Your task to perform on an android device: open app "VLC for Android" (install if not already installed) Image 0: 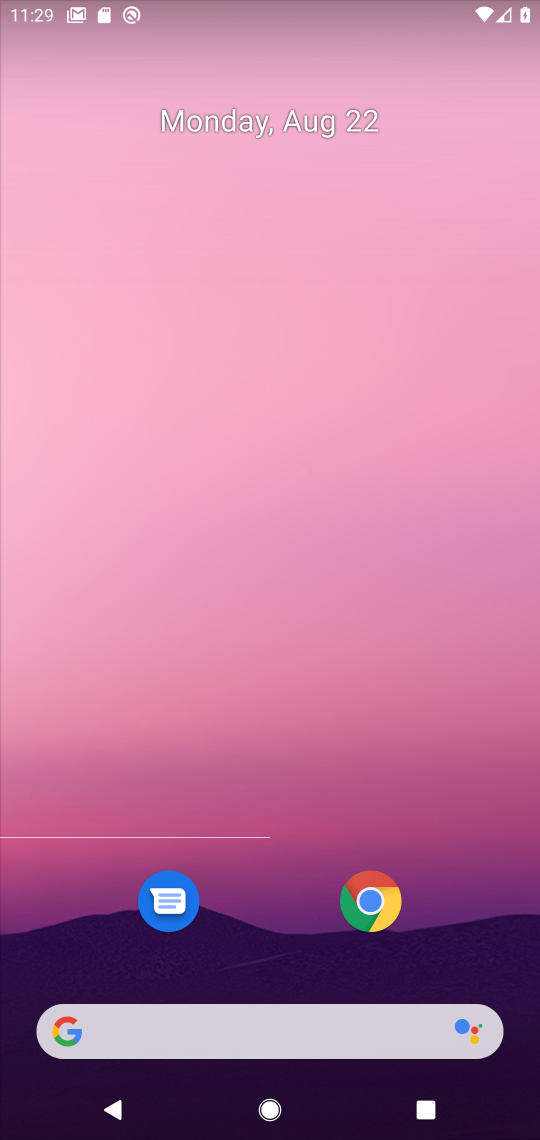
Step 0: click (529, 229)
Your task to perform on an android device: open app "VLC for Android" (install if not already installed) Image 1: 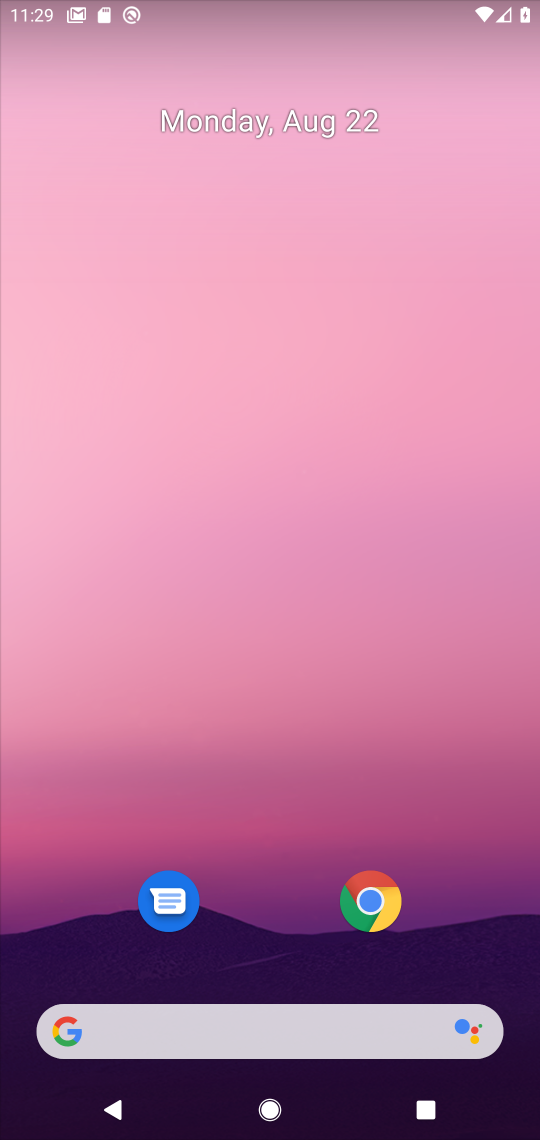
Step 1: drag from (268, 500) to (371, 6)
Your task to perform on an android device: open app "VLC for Android" (install if not already installed) Image 2: 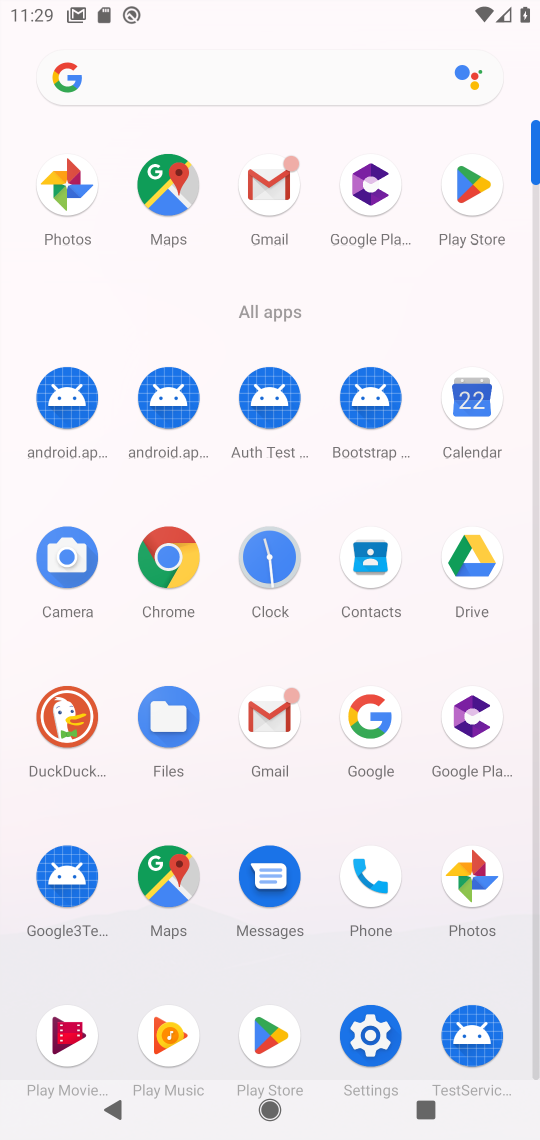
Step 2: click (480, 182)
Your task to perform on an android device: open app "VLC for Android" (install if not already installed) Image 3: 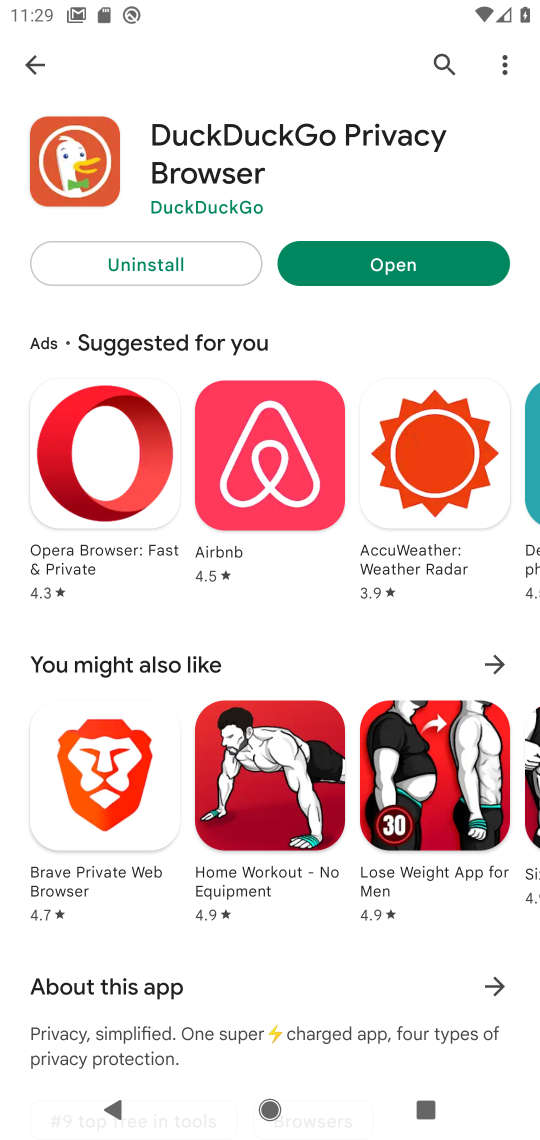
Step 3: click (28, 66)
Your task to perform on an android device: open app "VLC for Android" (install if not already installed) Image 4: 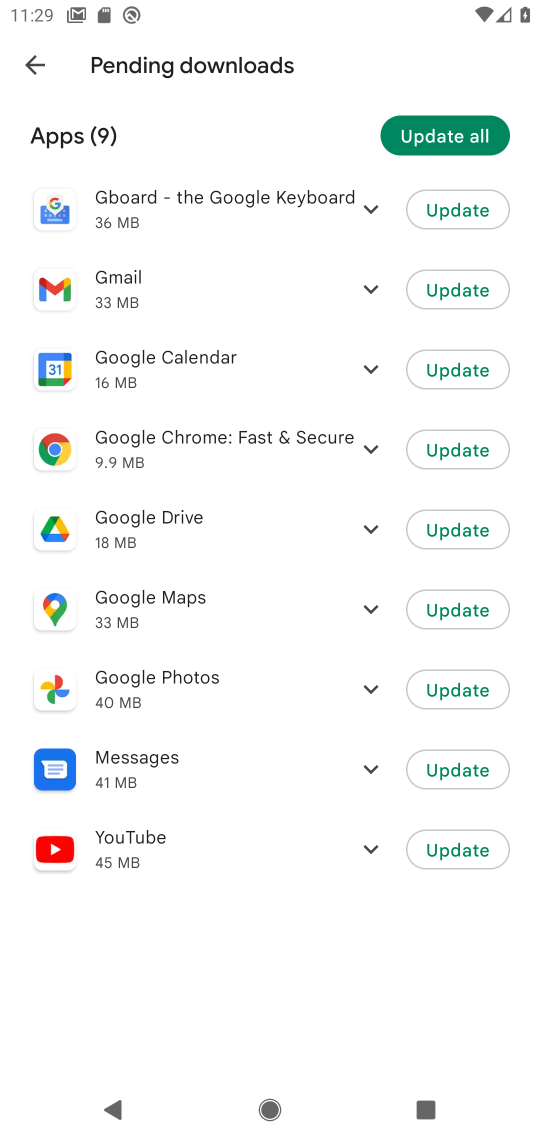
Step 4: click (46, 48)
Your task to perform on an android device: open app "VLC for Android" (install if not already installed) Image 5: 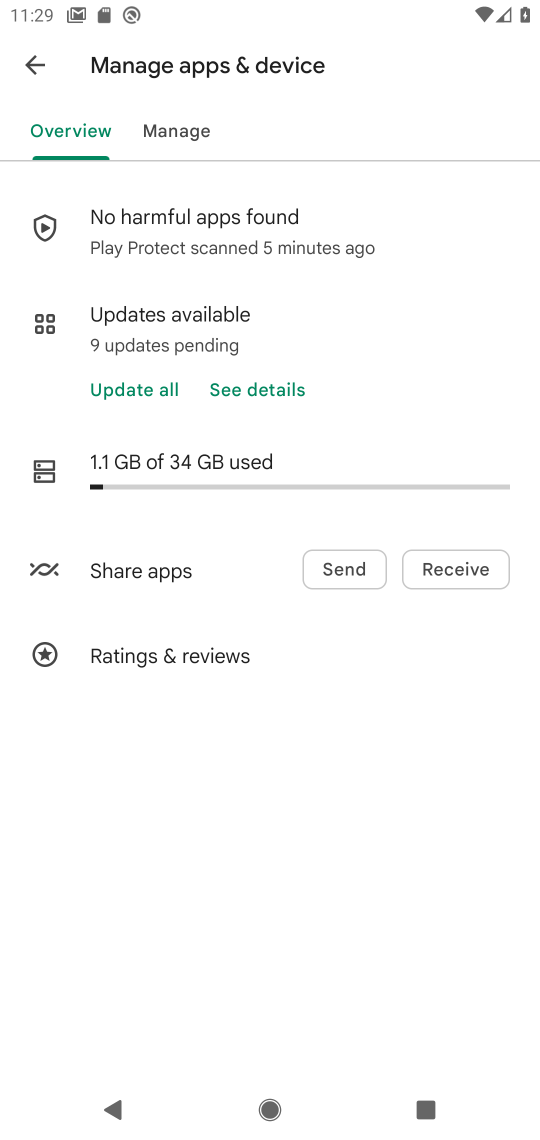
Step 5: click (23, 57)
Your task to perform on an android device: open app "VLC for Android" (install if not already installed) Image 6: 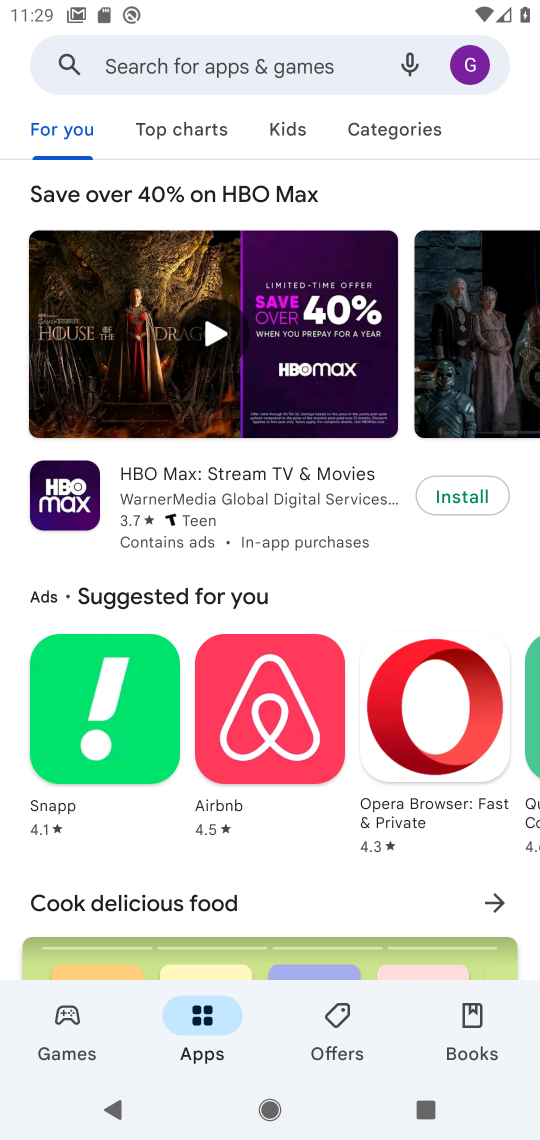
Step 6: click (236, 47)
Your task to perform on an android device: open app "VLC for Android" (install if not already installed) Image 7: 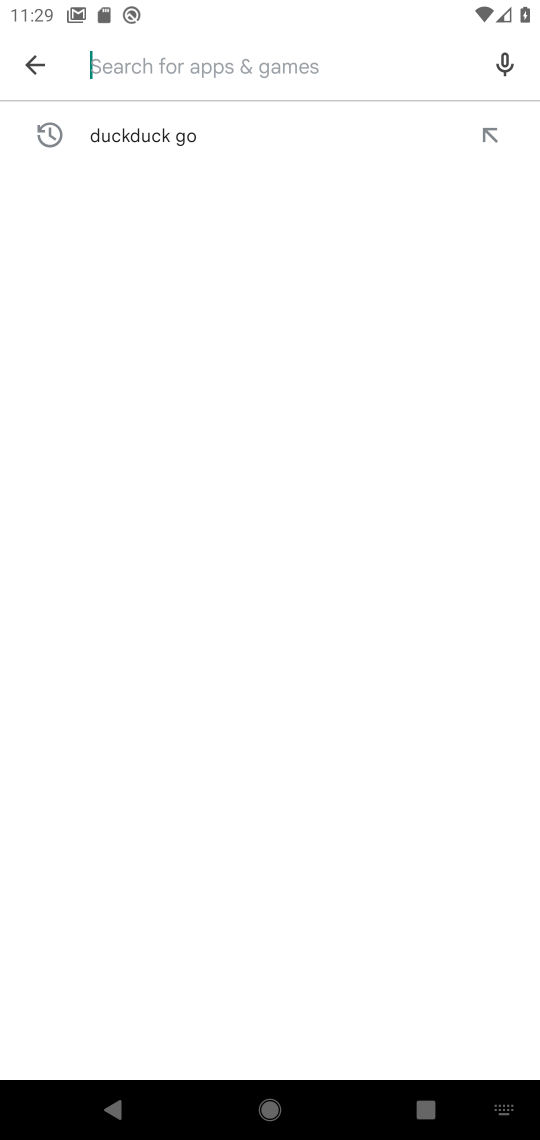
Step 7: type "vlc"
Your task to perform on an android device: open app "VLC for Android" (install if not already installed) Image 8: 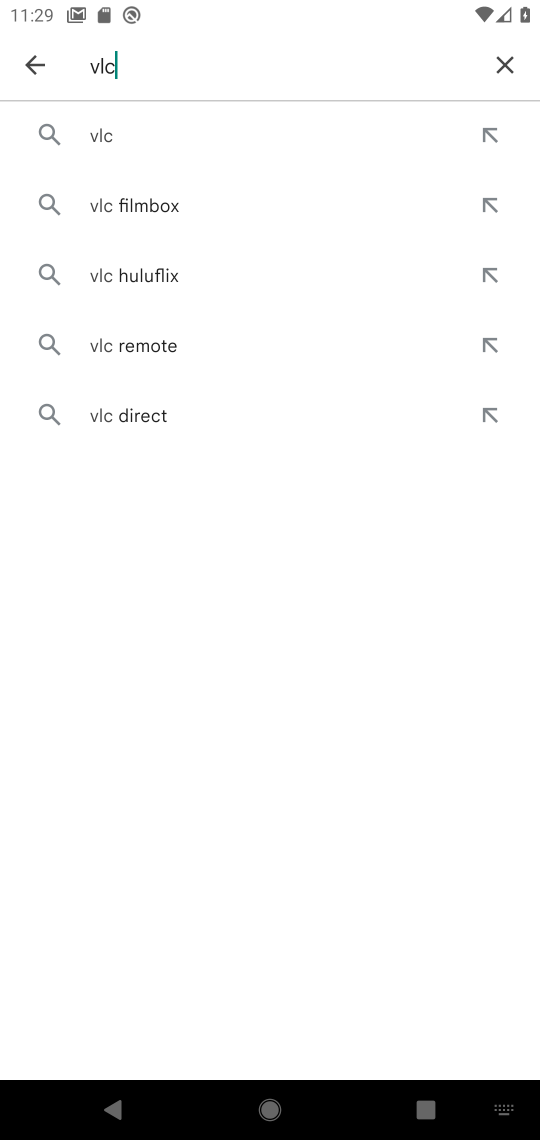
Step 8: click (120, 153)
Your task to perform on an android device: open app "VLC for Android" (install if not already installed) Image 9: 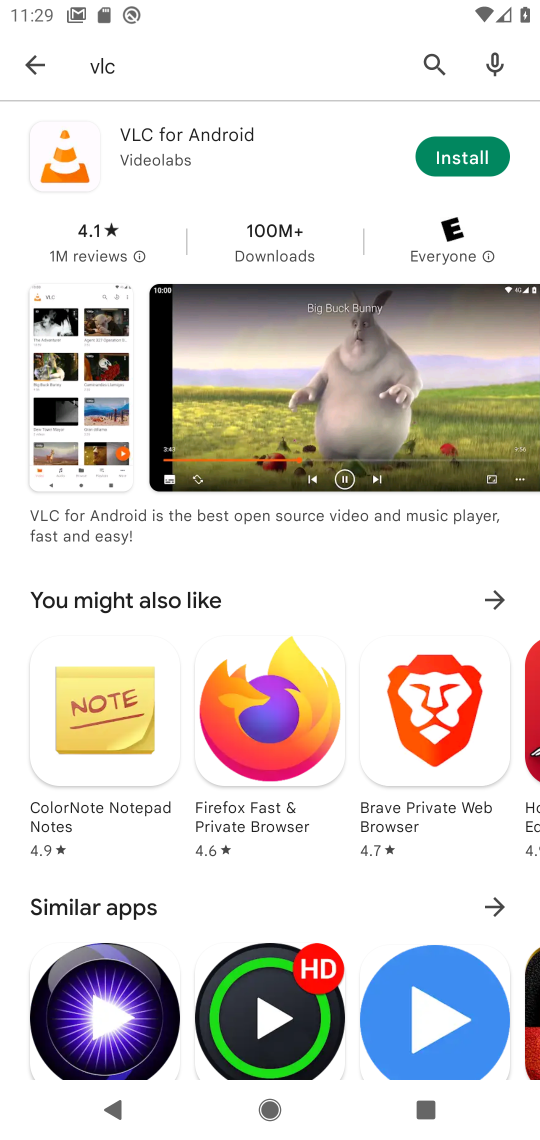
Step 9: click (464, 154)
Your task to perform on an android device: open app "VLC for Android" (install if not already installed) Image 10: 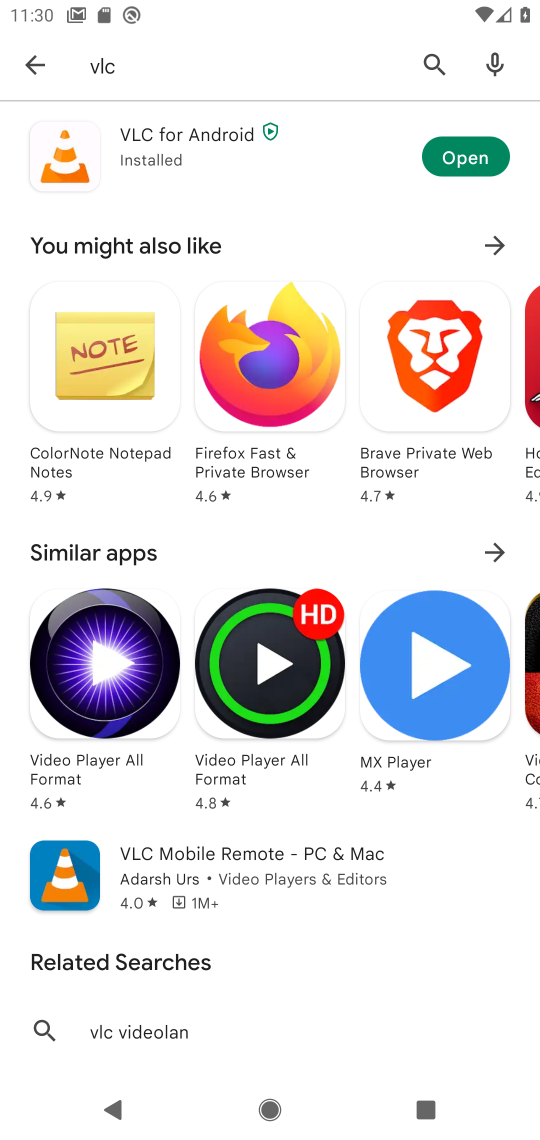
Step 10: click (481, 157)
Your task to perform on an android device: open app "VLC for Android" (install if not already installed) Image 11: 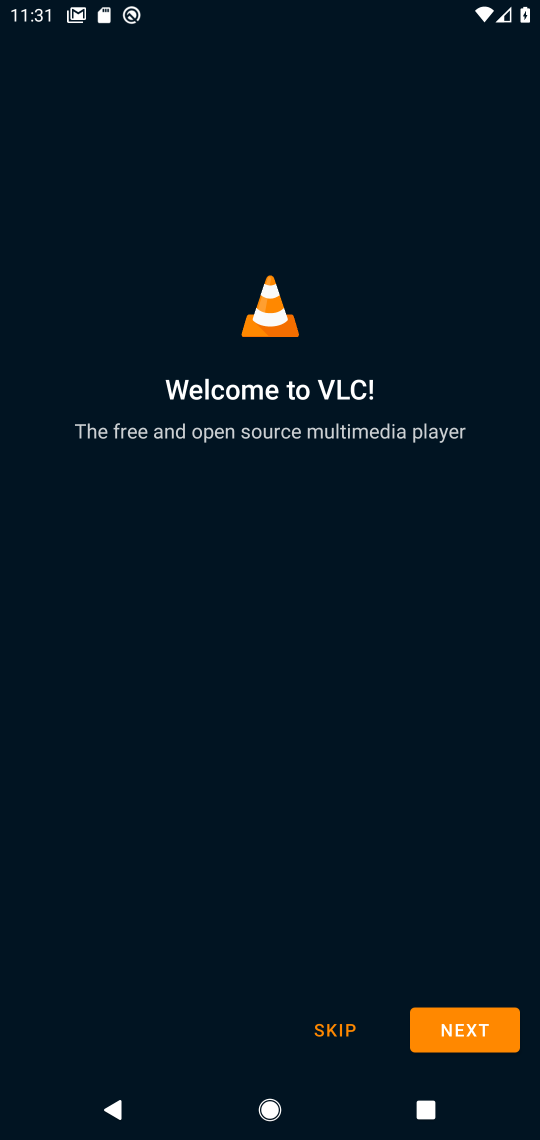
Step 11: click (309, 1024)
Your task to perform on an android device: open app "VLC for Android" (install if not already installed) Image 12: 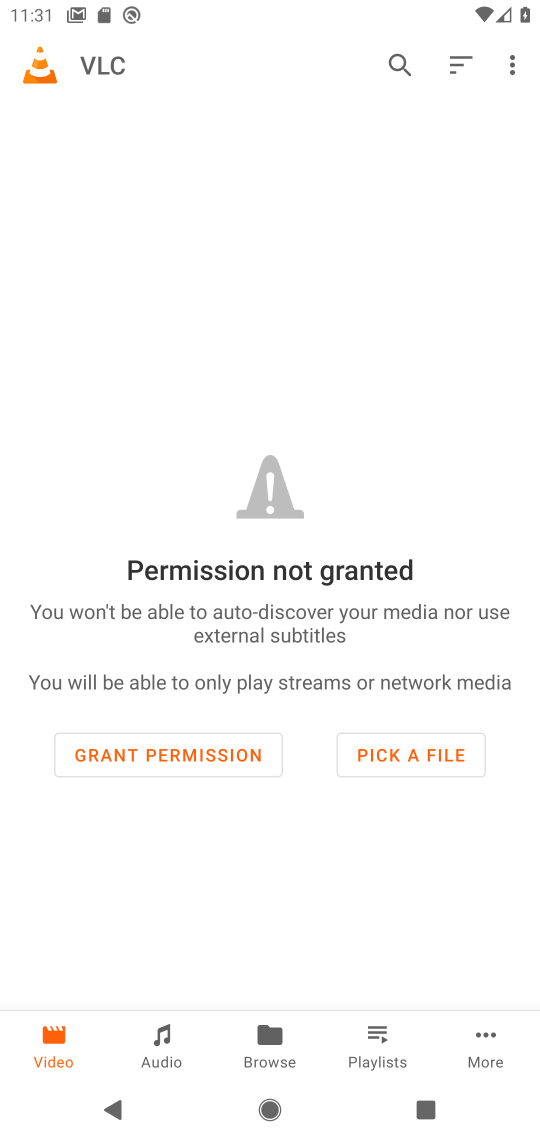
Step 12: task complete